Your task to perform on an android device: Open Google Chrome Image 0: 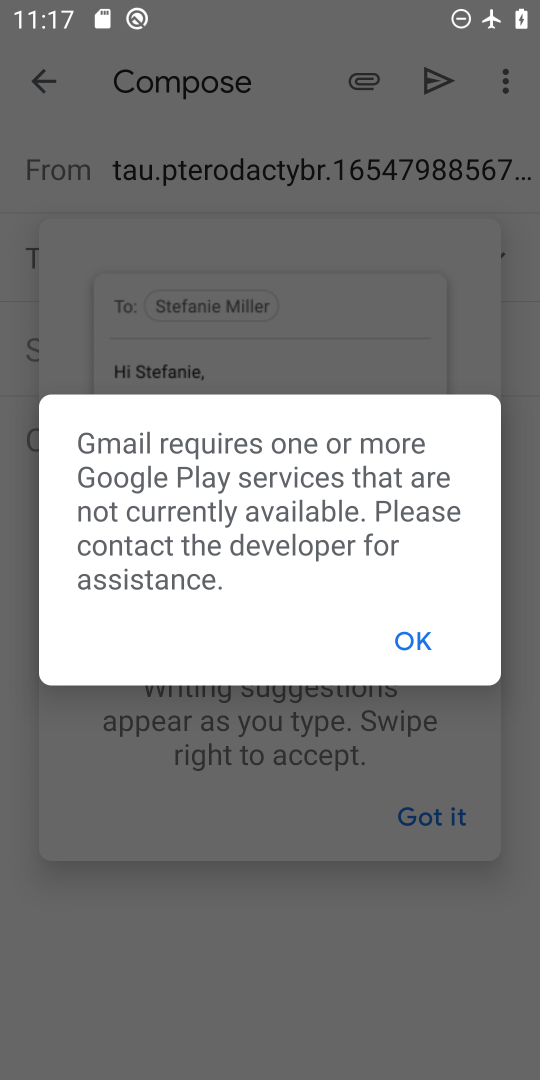
Step 0: press home button
Your task to perform on an android device: Open Google Chrome Image 1: 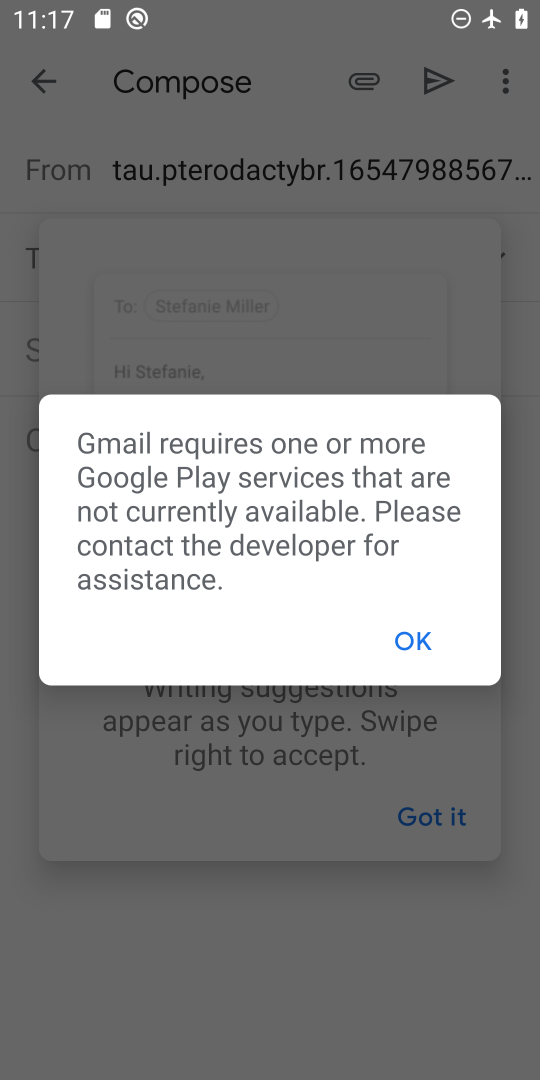
Step 1: press home button
Your task to perform on an android device: Open Google Chrome Image 2: 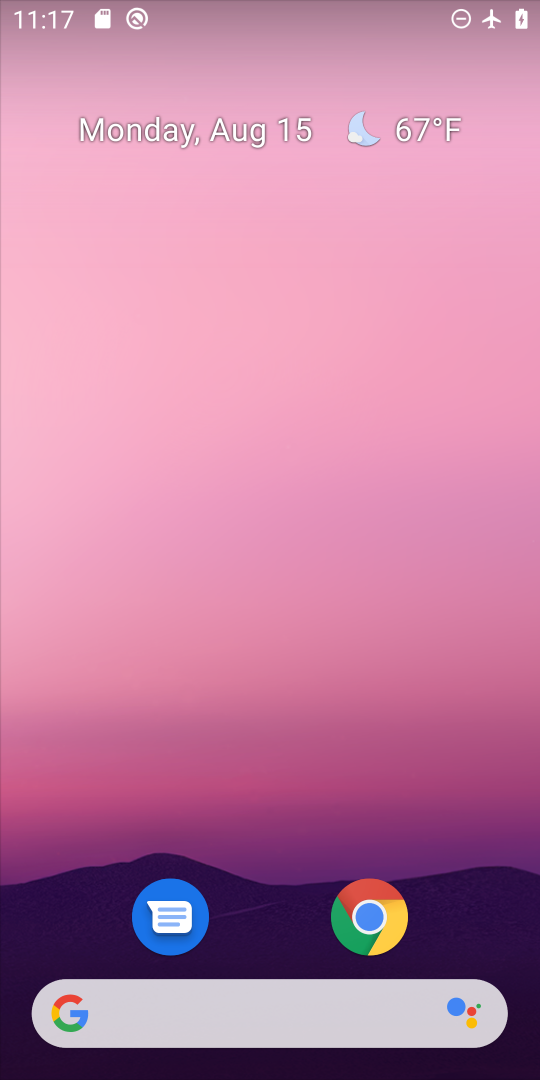
Step 2: click (370, 905)
Your task to perform on an android device: Open Google Chrome Image 3: 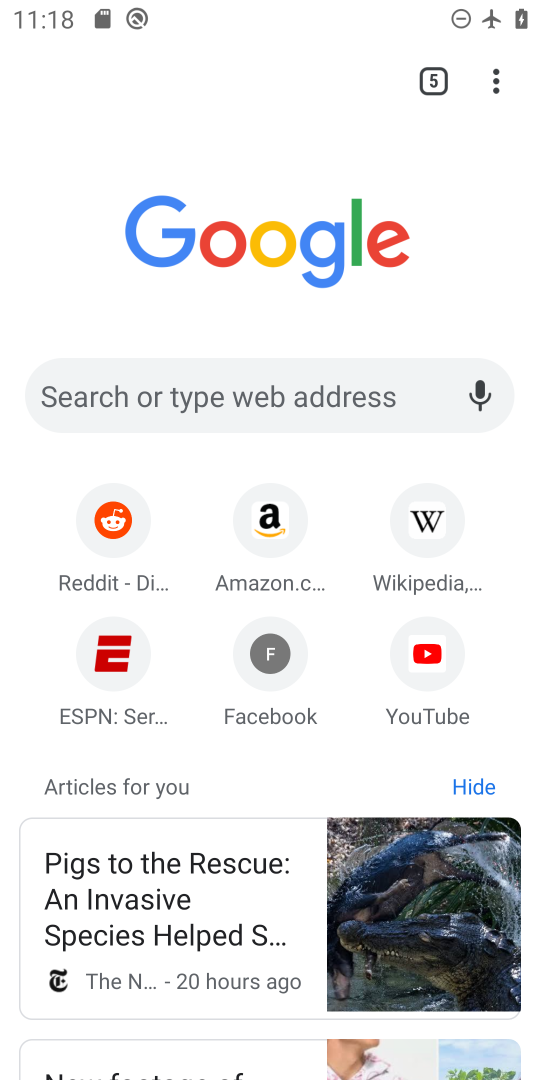
Step 3: task complete